Your task to perform on an android device: open app "Google Pay: Save, Pay, Manage" (install if not already installed) Image 0: 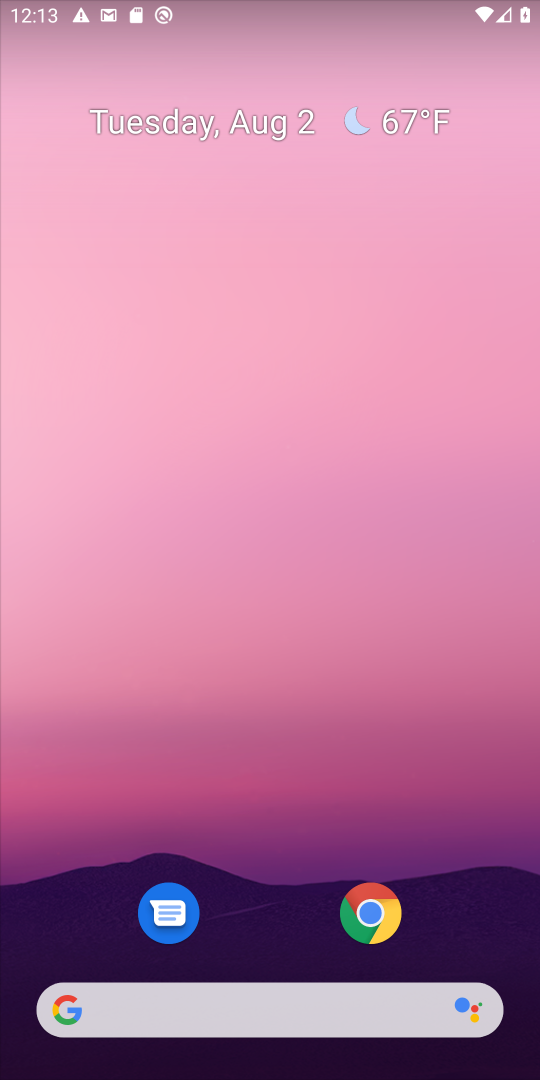
Step 0: drag from (498, 891) to (416, 65)
Your task to perform on an android device: open app "Google Pay: Save, Pay, Manage" (install if not already installed) Image 1: 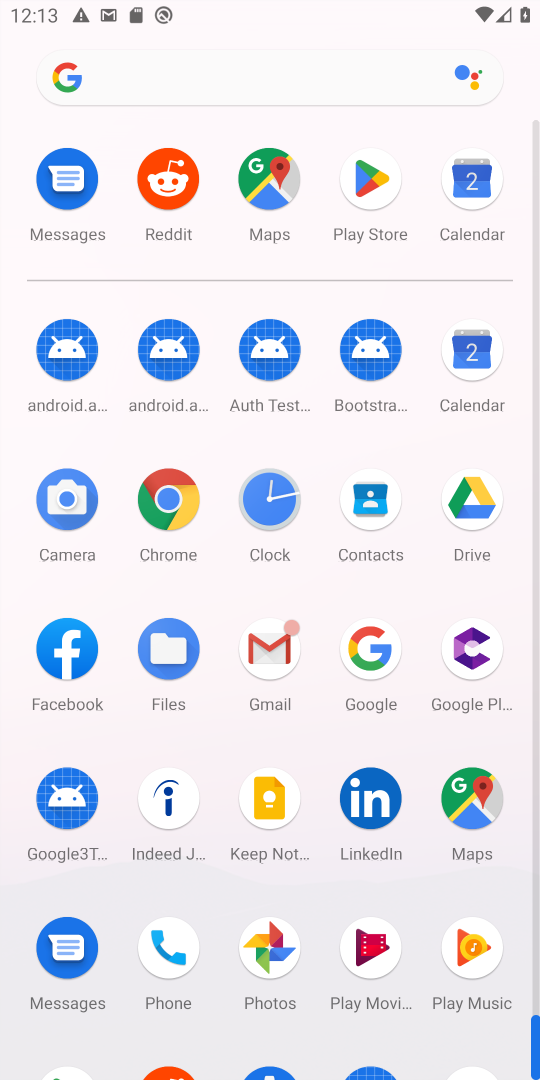
Step 1: click (385, 169)
Your task to perform on an android device: open app "Google Pay: Save, Pay, Manage" (install if not already installed) Image 2: 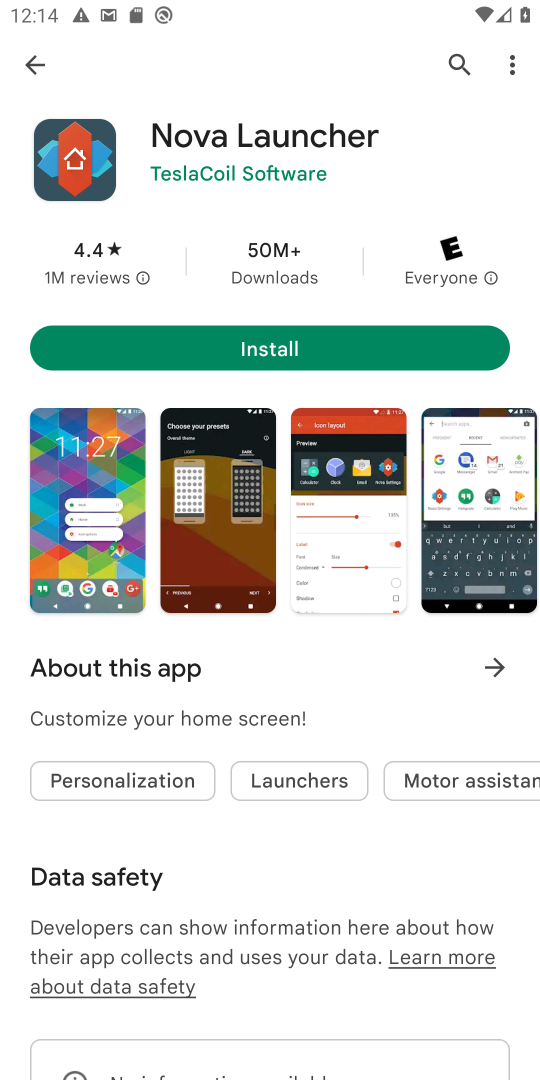
Step 2: press home button
Your task to perform on an android device: open app "Google Pay: Save, Pay, Manage" (install if not already installed) Image 3: 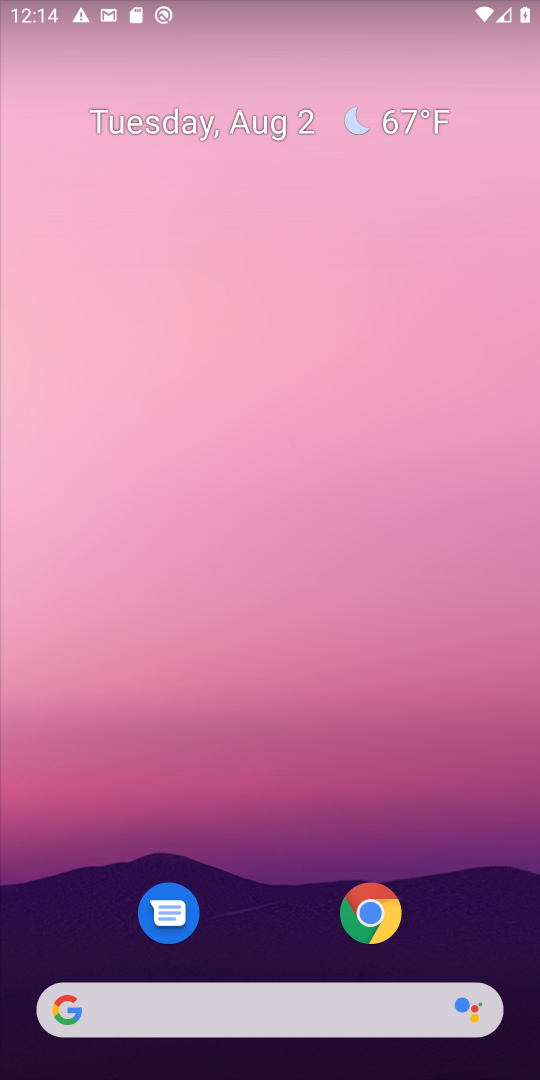
Step 3: drag from (508, 1004) to (347, 339)
Your task to perform on an android device: open app "Google Pay: Save, Pay, Manage" (install if not already installed) Image 4: 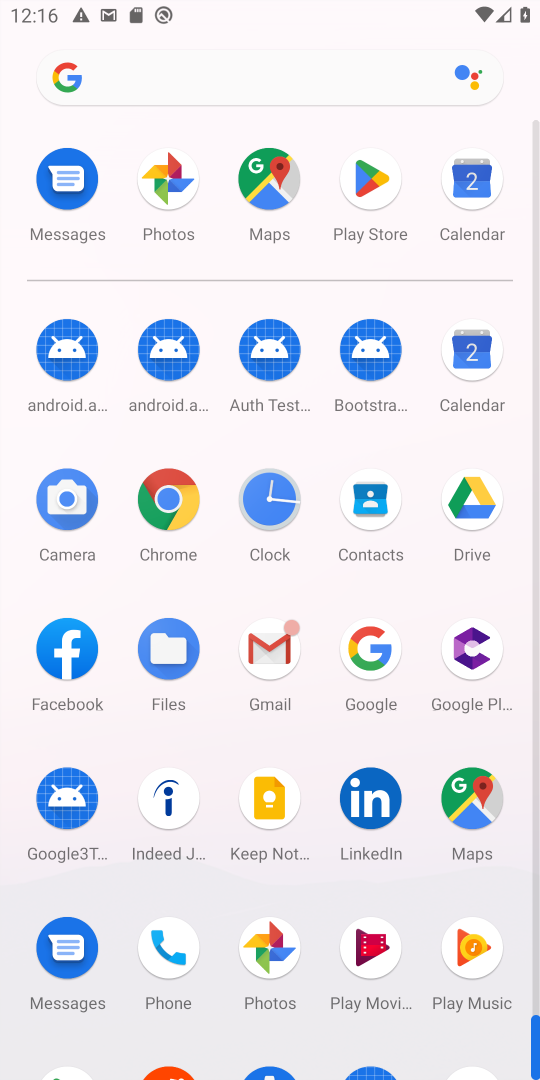
Step 4: click (375, 67)
Your task to perform on an android device: open app "Google Pay: Save, Pay, Manage" (install if not already installed) Image 5: 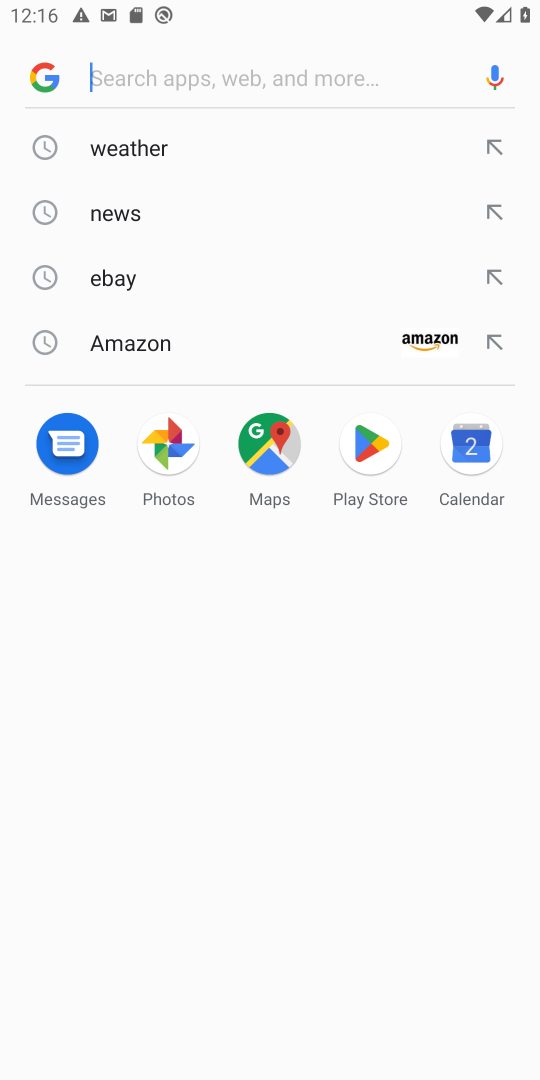
Step 5: click (372, 195)
Your task to perform on an android device: open app "Google Pay: Save, Pay, Manage" (install if not already installed) Image 6: 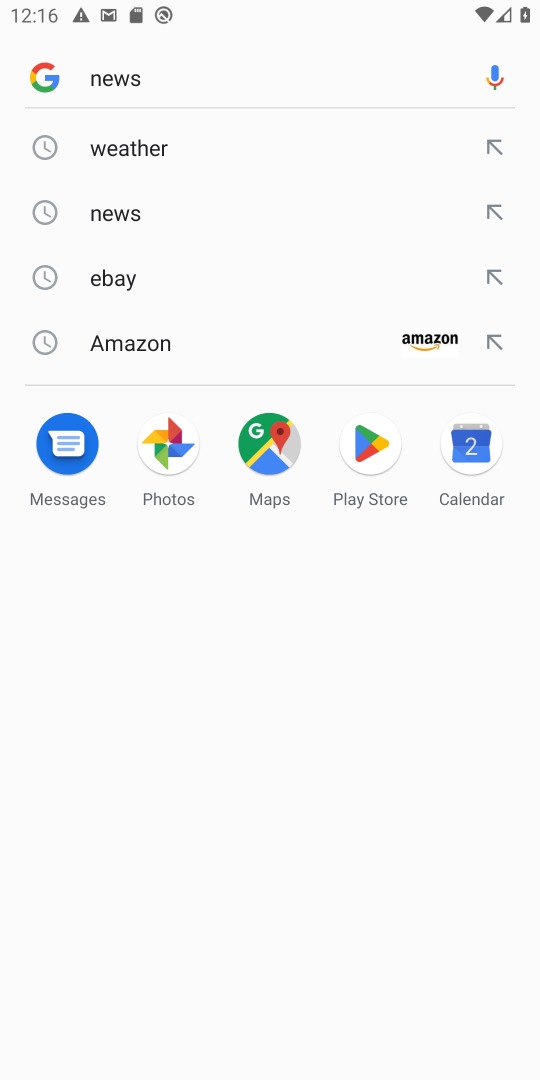
Step 6: press back button
Your task to perform on an android device: open app "Google Pay: Save, Pay, Manage" (install if not already installed) Image 7: 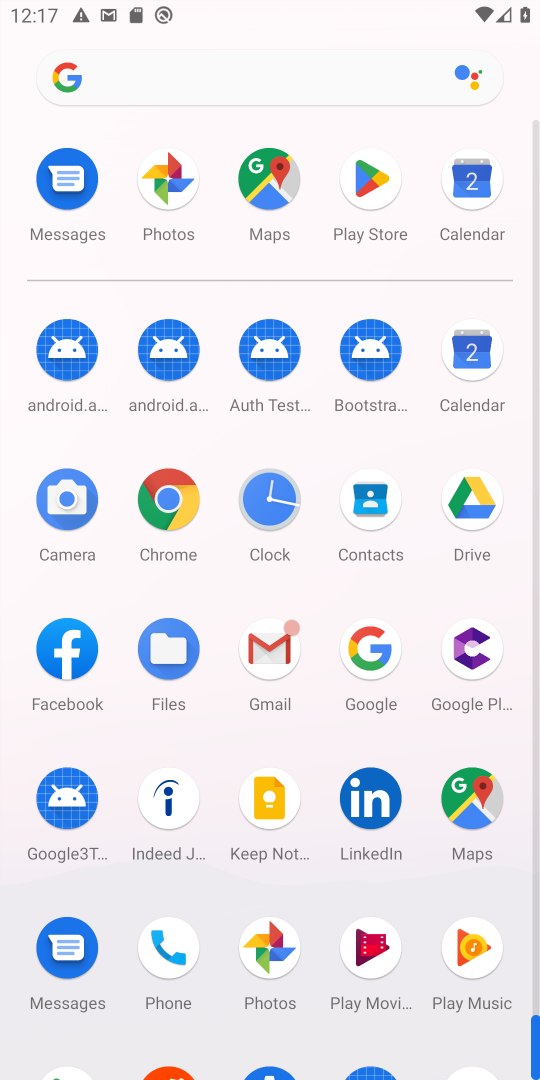
Step 7: click (362, 171)
Your task to perform on an android device: open app "Google Pay: Save, Pay, Manage" (install if not already installed) Image 8: 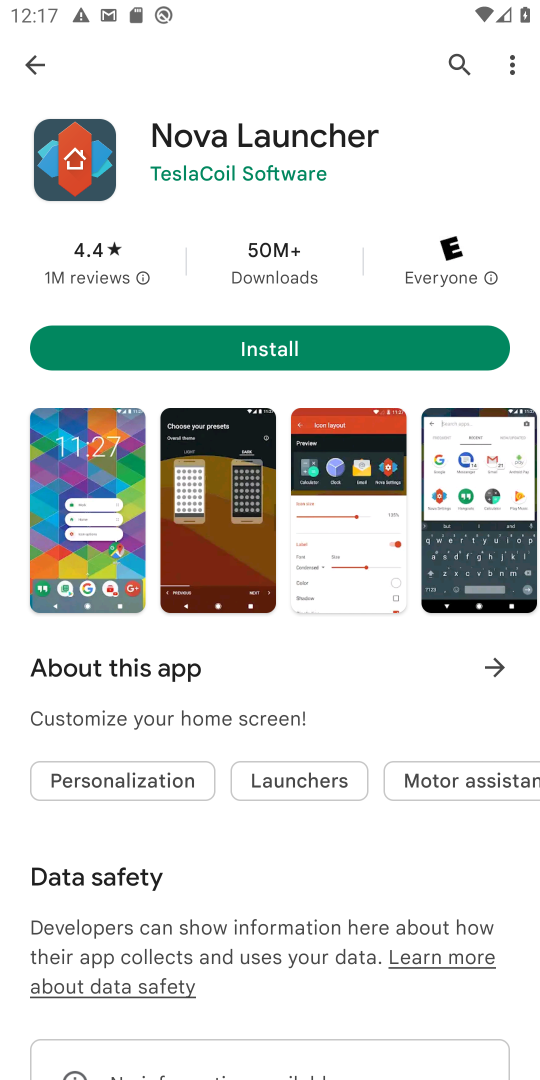
Step 8: click (465, 56)
Your task to perform on an android device: open app "Google Pay: Save, Pay, Manage" (install if not already installed) Image 9: 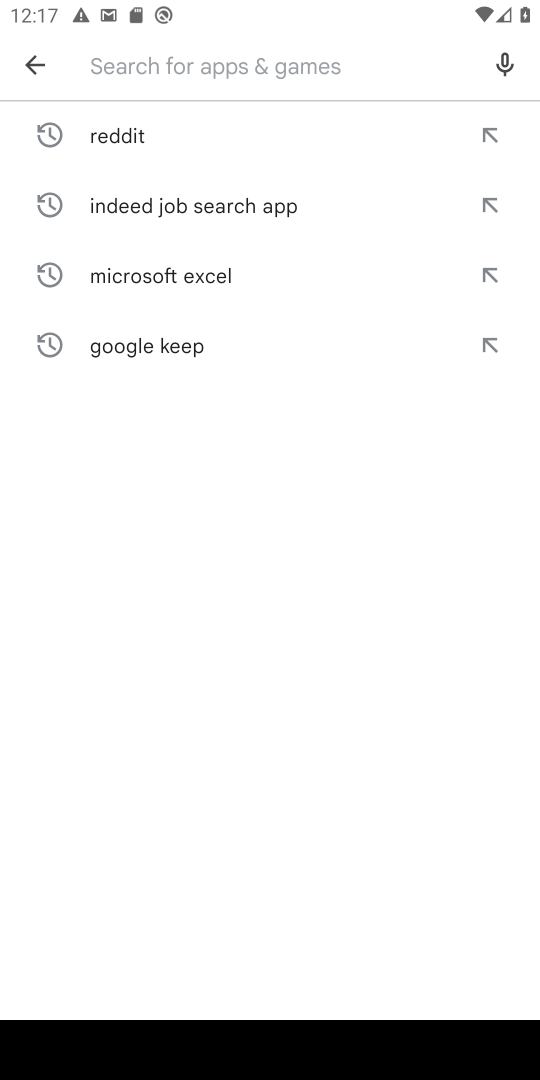
Step 9: type "Google Pay: Save, Pay, Manage"
Your task to perform on an android device: open app "Google Pay: Save, Pay, Manage" (install if not already installed) Image 10: 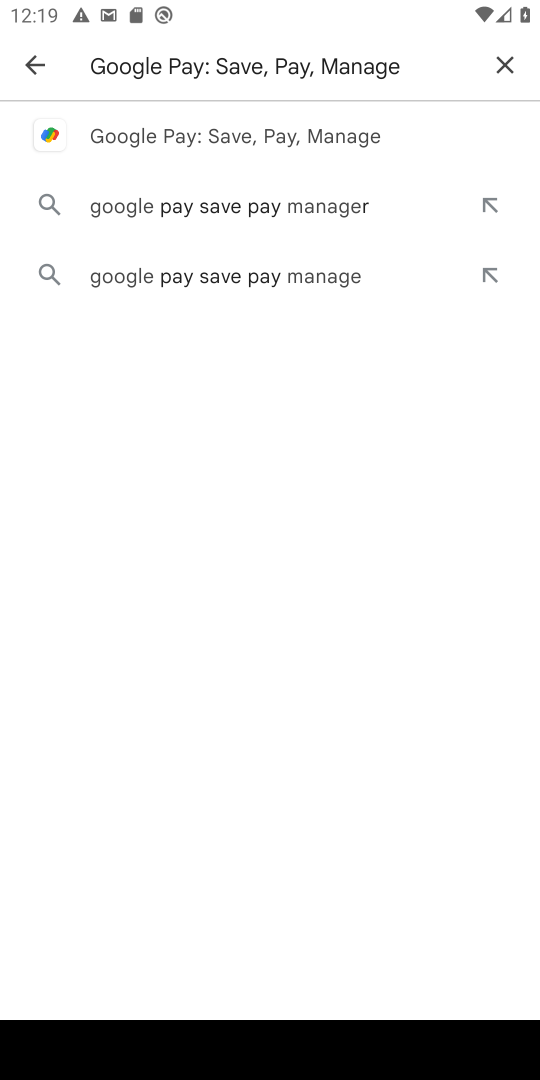
Step 10: click (263, 148)
Your task to perform on an android device: open app "Google Pay: Save, Pay, Manage" (install if not already installed) Image 11: 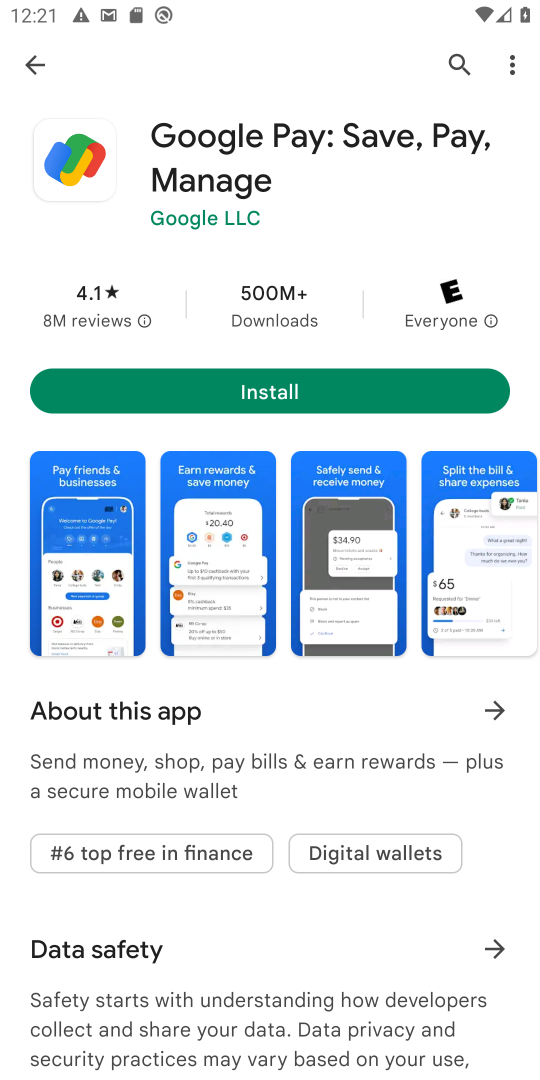
Step 11: task complete